Your task to perform on an android device: What's the weather going to be tomorrow? Image 0: 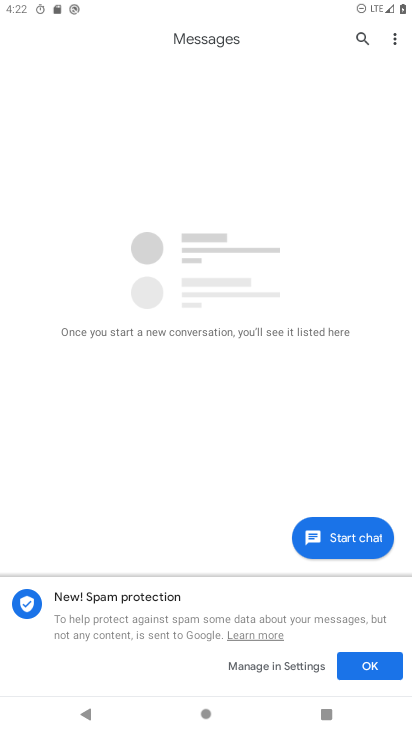
Step 0: press home button
Your task to perform on an android device: What's the weather going to be tomorrow? Image 1: 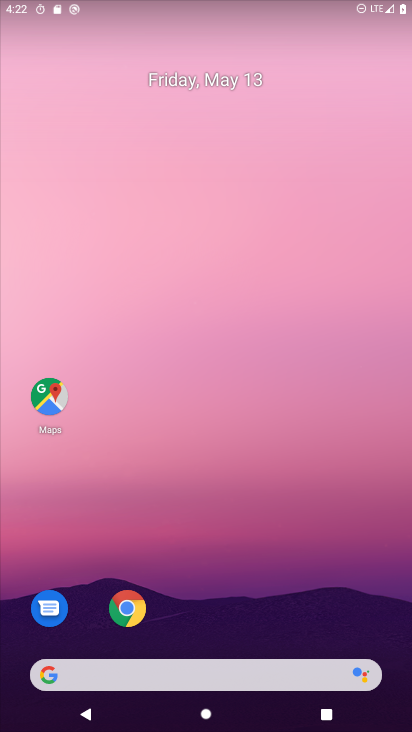
Step 1: drag from (257, 627) to (198, 1)
Your task to perform on an android device: What's the weather going to be tomorrow? Image 2: 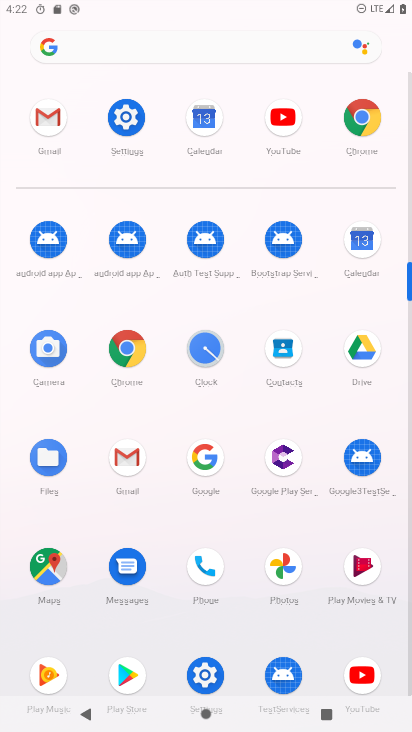
Step 2: click (365, 114)
Your task to perform on an android device: What's the weather going to be tomorrow? Image 3: 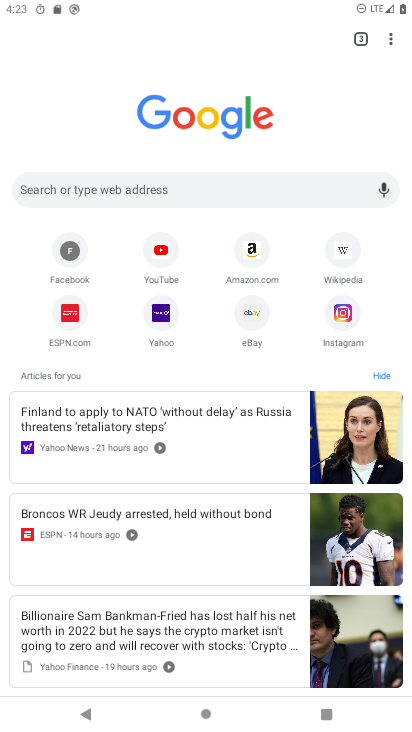
Step 3: click (197, 197)
Your task to perform on an android device: What's the weather going to be tomorrow? Image 4: 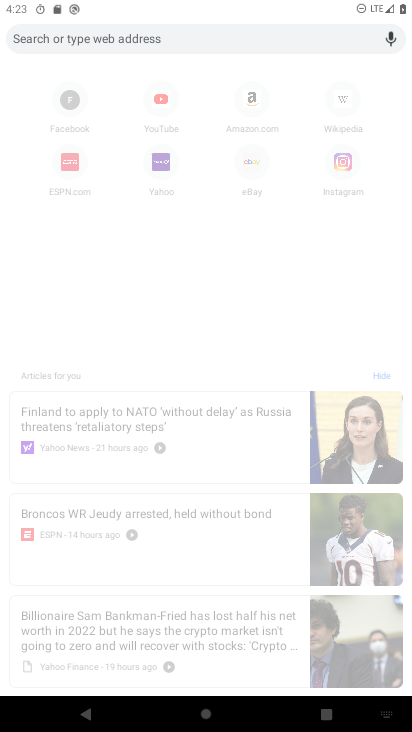
Step 4: type "What's the weather going to be tomorrow?"
Your task to perform on an android device: What's the weather going to be tomorrow? Image 5: 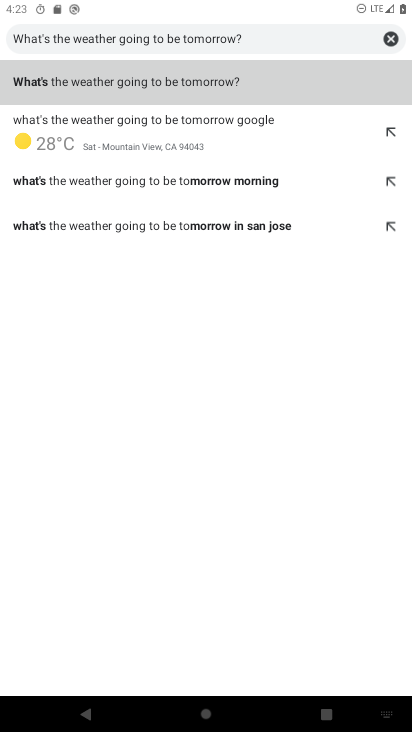
Step 5: click (213, 78)
Your task to perform on an android device: What's the weather going to be tomorrow? Image 6: 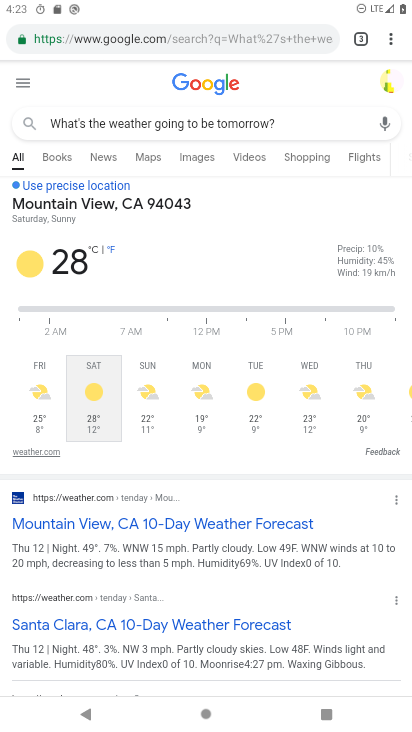
Step 6: task complete